Your task to perform on an android device: open a new tab in the chrome app Image 0: 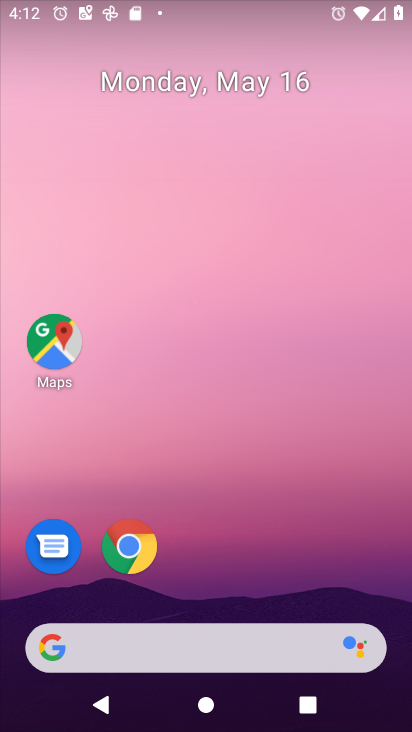
Step 0: drag from (332, 597) to (327, 208)
Your task to perform on an android device: open a new tab in the chrome app Image 1: 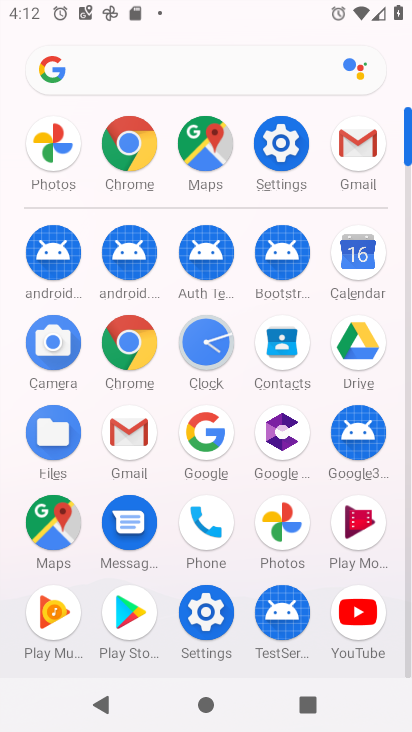
Step 1: click (142, 351)
Your task to perform on an android device: open a new tab in the chrome app Image 2: 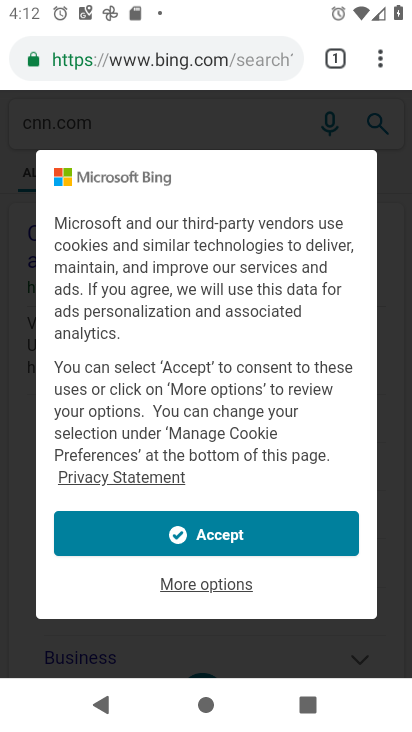
Step 2: click (382, 67)
Your task to perform on an android device: open a new tab in the chrome app Image 3: 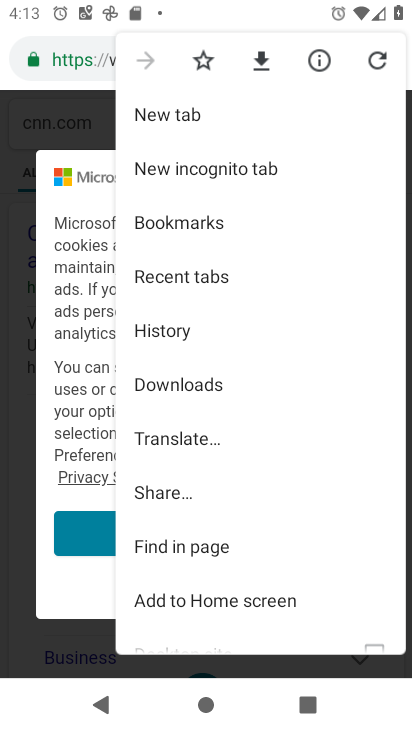
Step 3: click (191, 124)
Your task to perform on an android device: open a new tab in the chrome app Image 4: 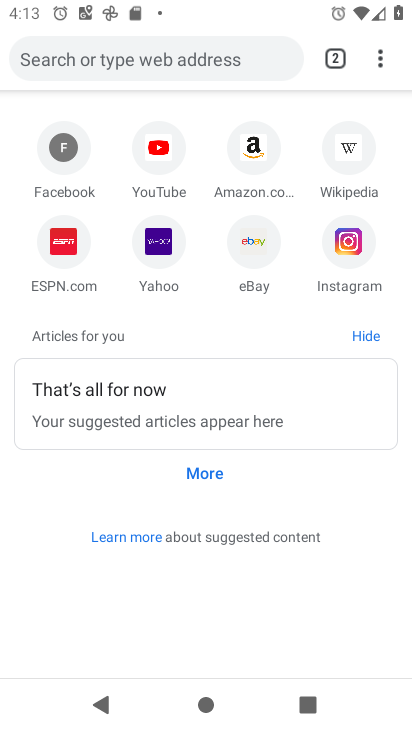
Step 4: task complete